Your task to perform on an android device: clear all cookies in the chrome app Image 0: 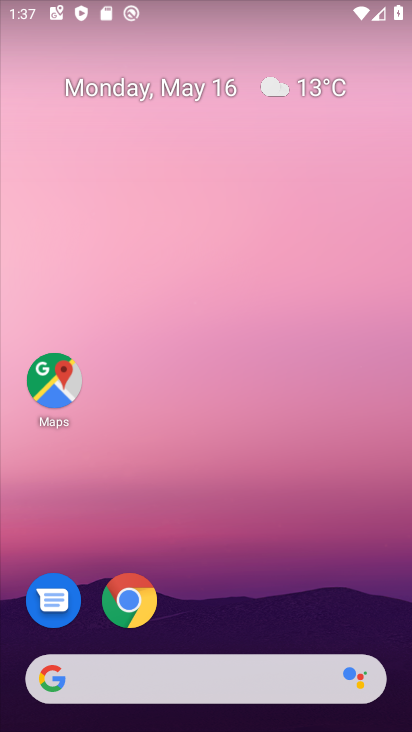
Step 0: click (141, 594)
Your task to perform on an android device: clear all cookies in the chrome app Image 1: 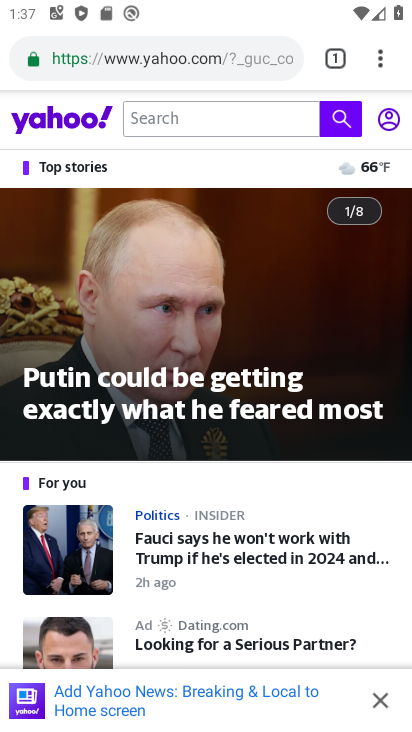
Step 1: click (389, 57)
Your task to perform on an android device: clear all cookies in the chrome app Image 2: 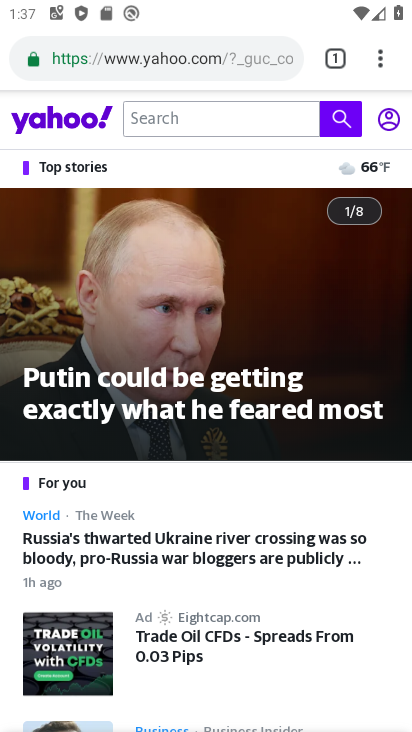
Step 2: click (381, 63)
Your task to perform on an android device: clear all cookies in the chrome app Image 3: 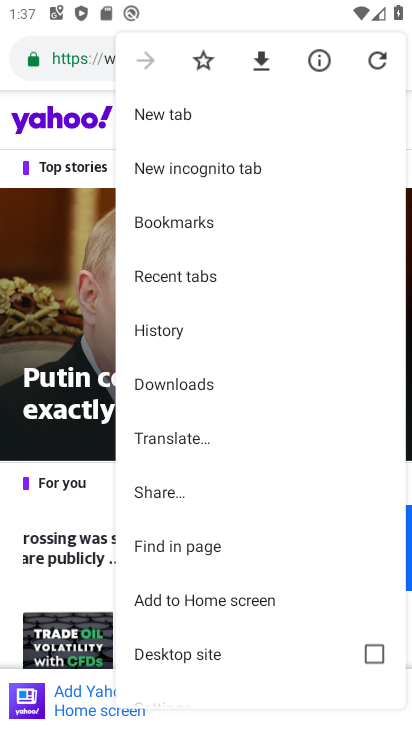
Step 3: drag from (197, 540) to (201, 219)
Your task to perform on an android device: clear all cookies in the chrome app Image 4: 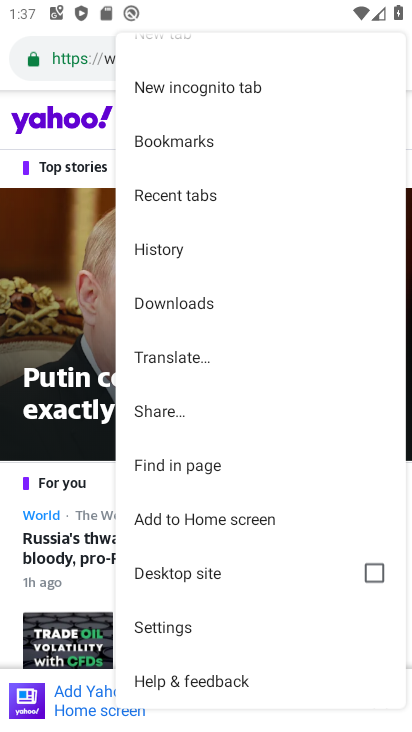
Step 4: click (220, 632)
Your task to perform on an android device: clear all cookies in the chrome app Image 5: 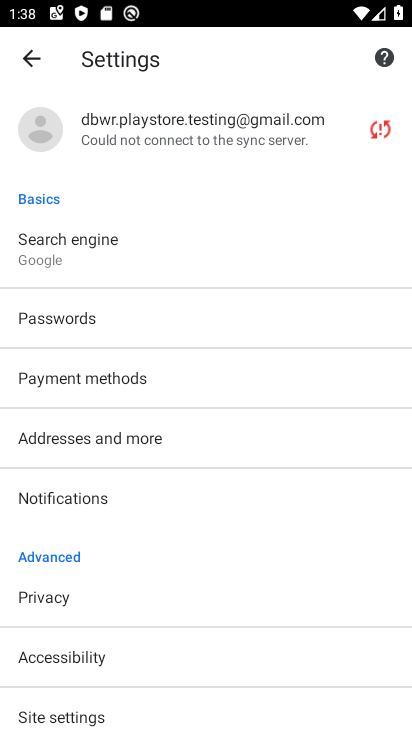
Step 5: drag from (208, 648) to (152, 456)
Your task to perform on an android device: clear all cookies in the chrome app Image 6: 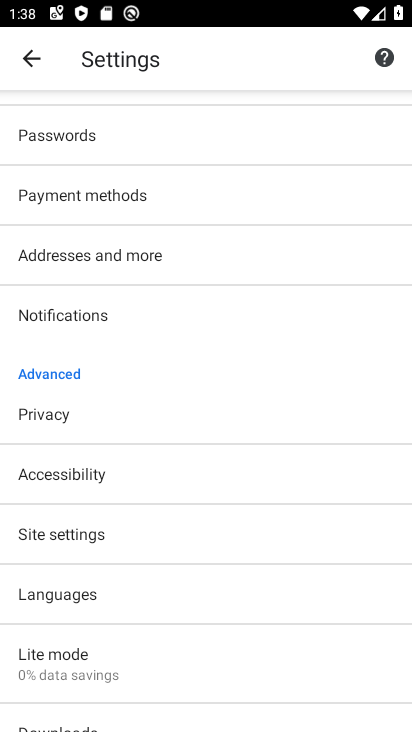
Step 6: click (92, 415)
Your task to perform on an android device: clear all cookies in the chrome app Image 7: 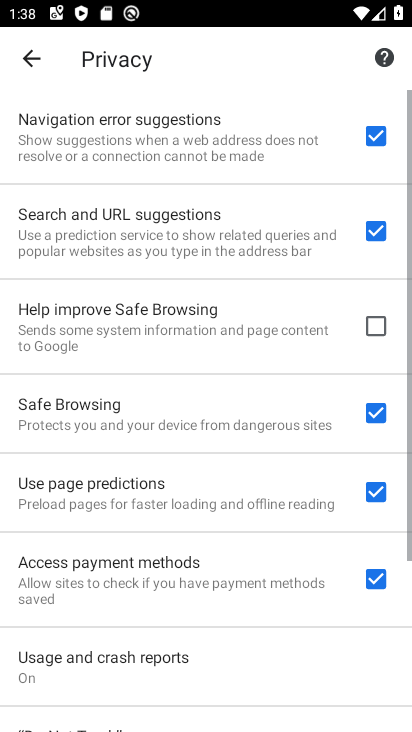
Step 7: drag from (177, 628) to (184, 199)
Your task to perform on an android device: clear all cookies in the chrome app Image 8: 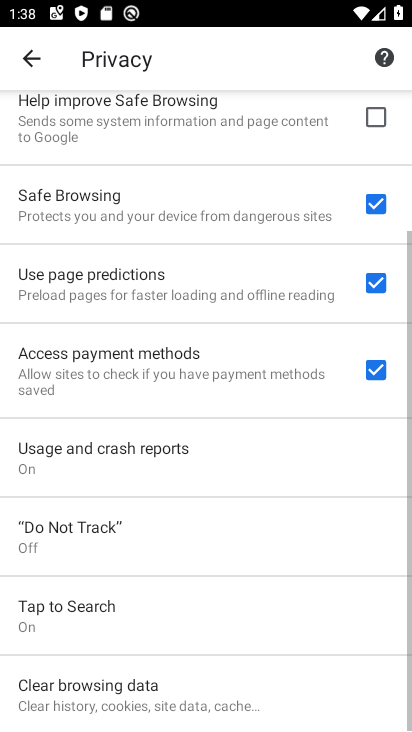
Step 8: click (158, 689)
Your task to perform on an android device: clear all cookies in the chrome app Image 9: 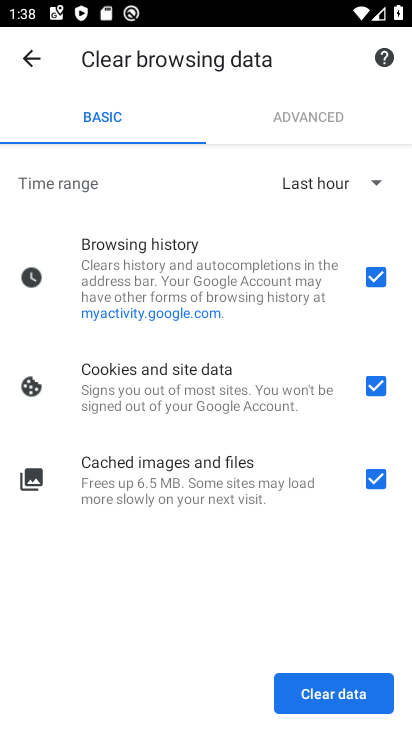
Step 9: click (343, 178)
Your task to perform on an android device: clear all cookies in the chrome app Image 10: 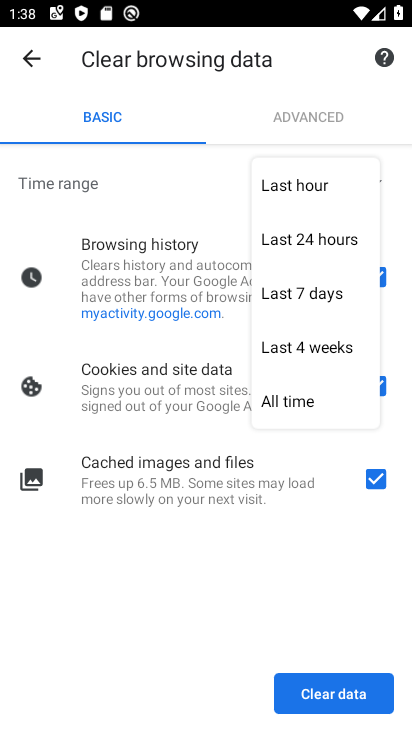
Step 10: click (299, 408)
Your task to perform on an android device: clear all cookies in the chrome app Image 11: 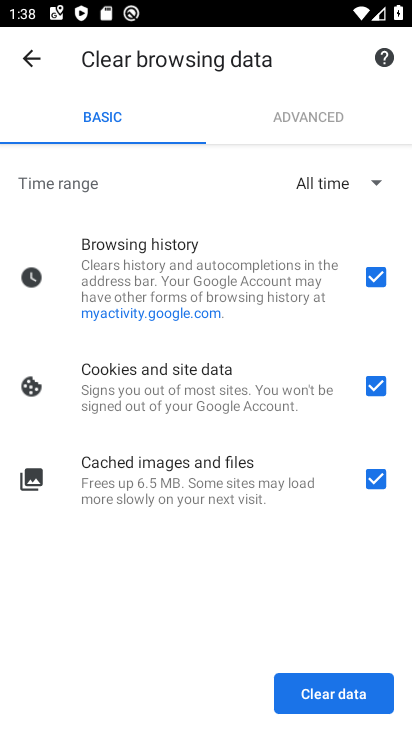
Step 11: click (383, 275)
Your task to perform on an android device: clear all cookies in the chrome app Image 12: 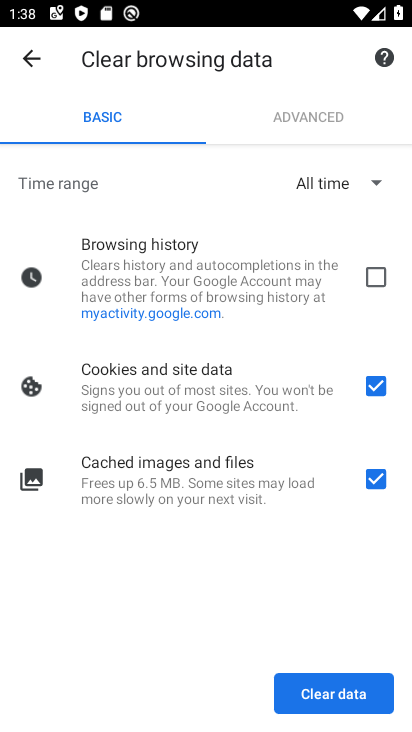
Step 12: click (378, 478)
Your task to perform on an android device: clear all cookies in the chrome app Image 13: 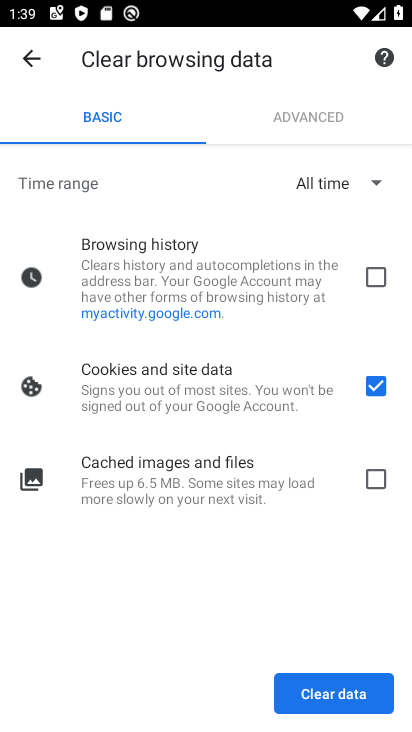
Step 13: click (351, 696)
Your task to perform on an android device: clear all cookies in the chrome app Image 14: 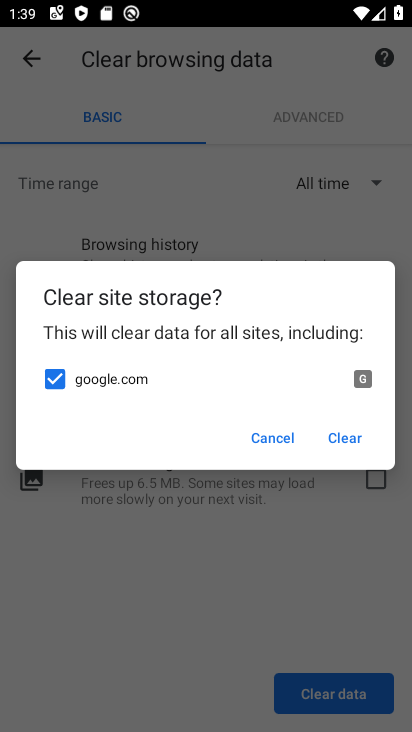
Step 14: click (335, 436)
Your task to perform on an android device: clear all cookies in the chrome app Image 15: 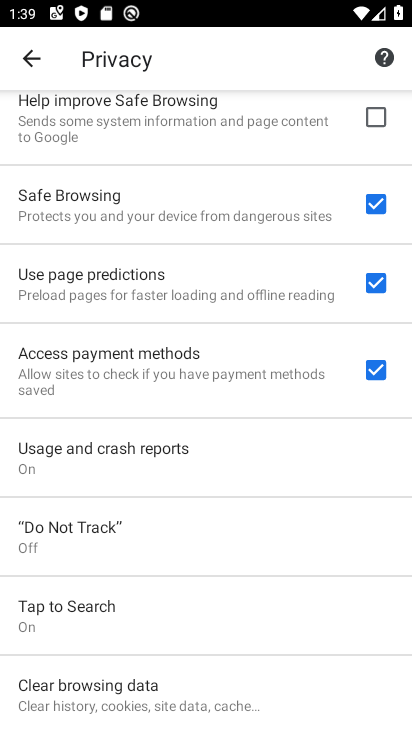
Step 15: task complete